Your task to perform on an android device: Go to internet settings Image 0: 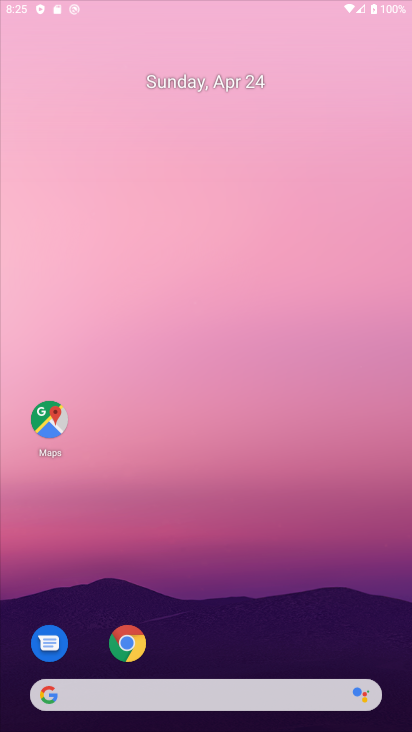
Step 0: click (252, 225)
Your task to perform on an android device: Go to internet settings Image 1: 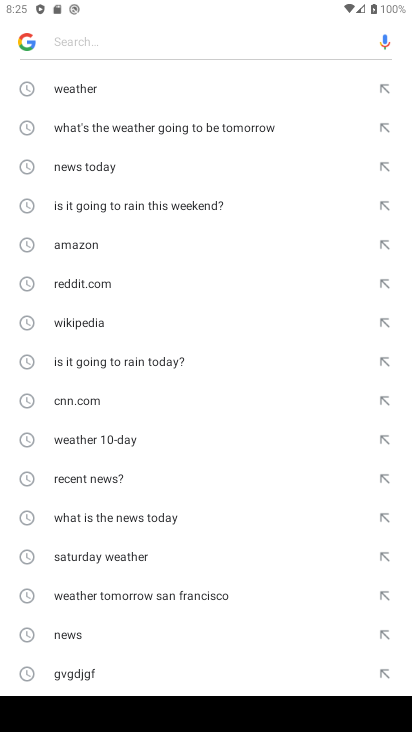
Step 1: press home button
Your task to perform on an android device: Go to internet settings Image 2: 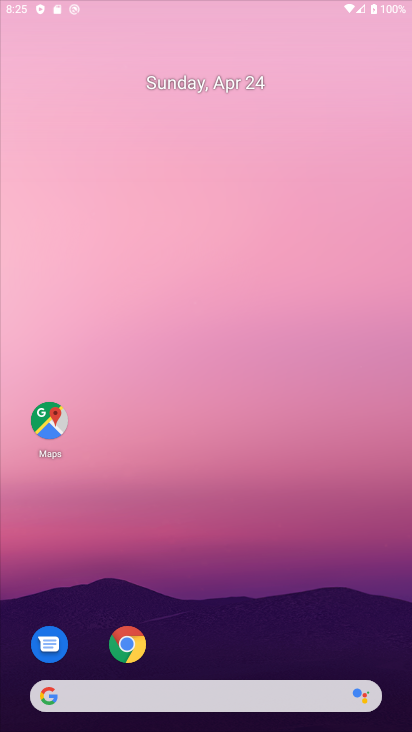
Step 2: drag from (146, 618) to (174, 172)
Your task to perform on an android device: Go to internet settings Image 3: 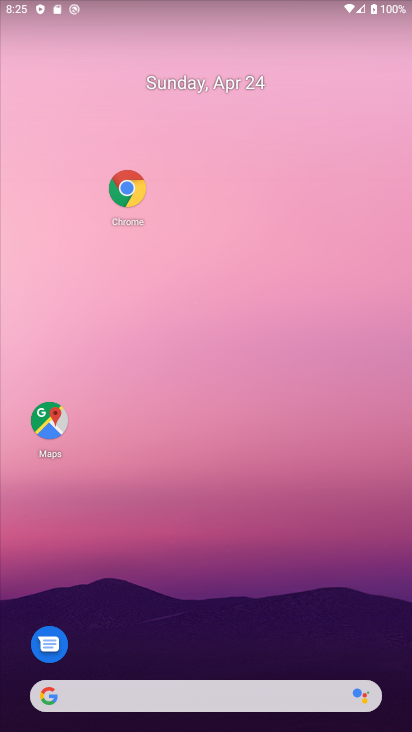
Step 3: drag from (182, 597) to (228, 209)
Your task to perform on an android device: Go to internet settings Image 4: 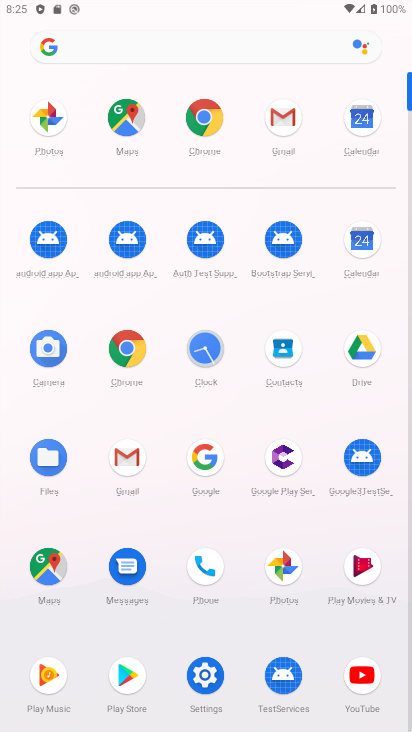
Step 4: click (193, 668)
Your task to perform on an android device: Go to internet settings Image 5: 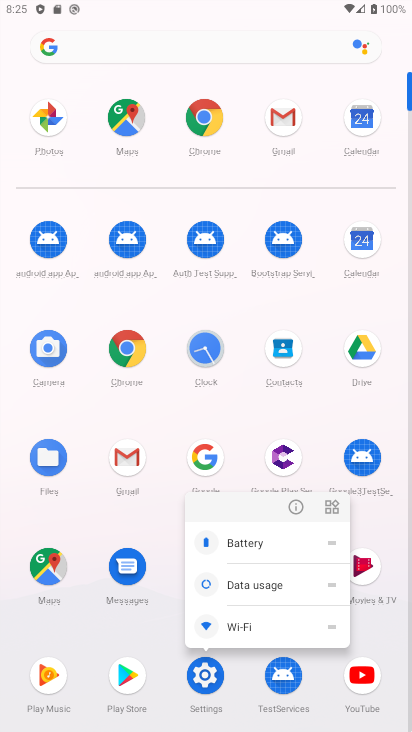
Step 5: click (295, 502)
Your task to perform on an android device: Go to internet settings Image 6: 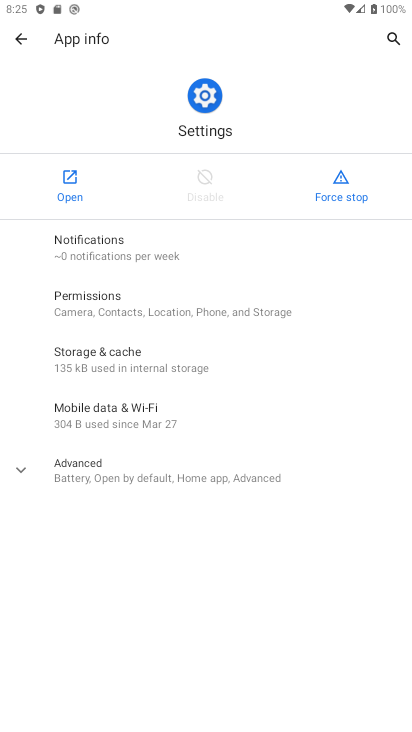
Step 6: click (65, 199)
Your task to perform on an android device: Go to internet settings Image 7: 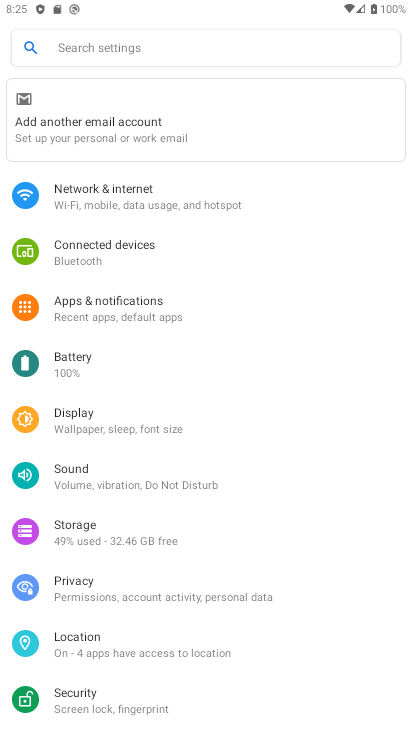
Step 7: click (133, 196)
Your task to perform on an android device: Go to internet settings Image 8: 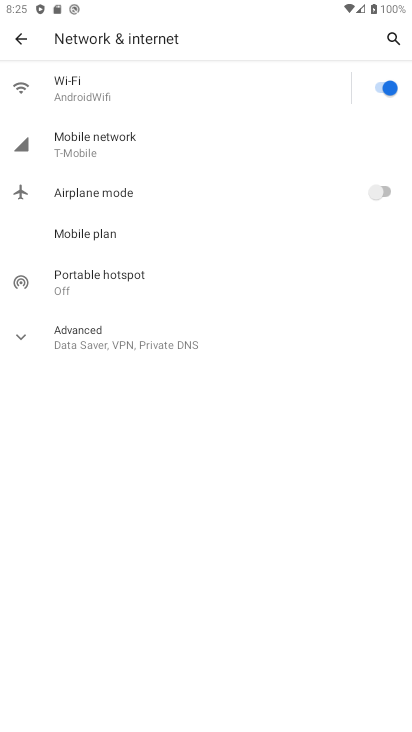
Step 8: click (188, 145)
Your task to perform on an android device: Go to internet settings Image 9: 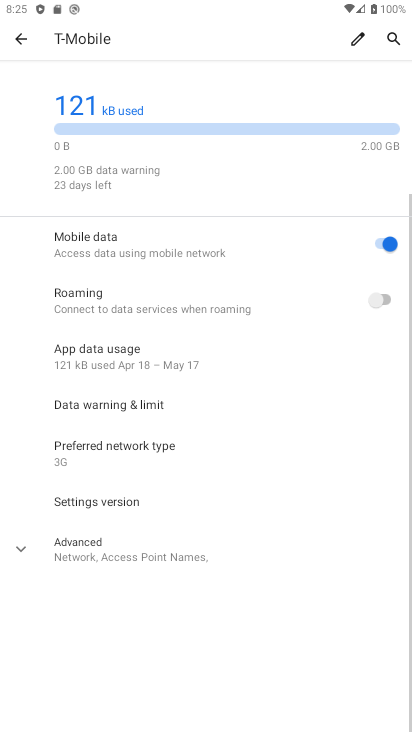
Step 9: click (21, 21)
Your task to perform on an android device: Go to internet settings Image 10: 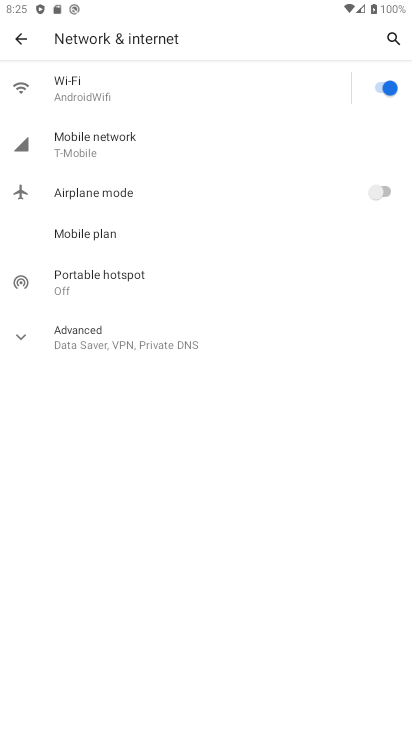
Step 10: task complete